Your task to perform on an android device: Open Google Chrome Image 0: 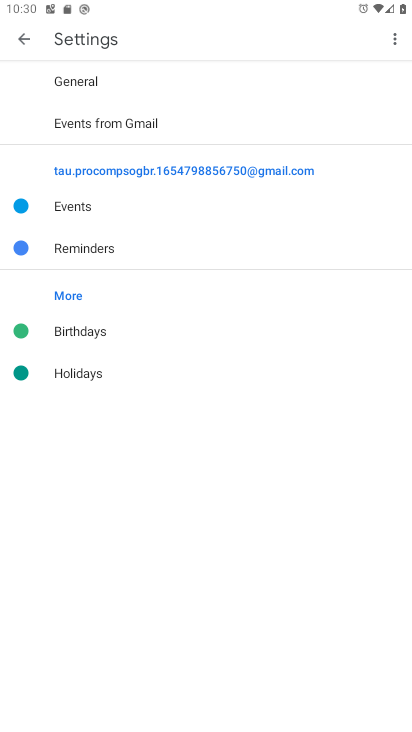
Step 0: press home button
Your task to perform on an android device: Open Google Chrome Image 1: 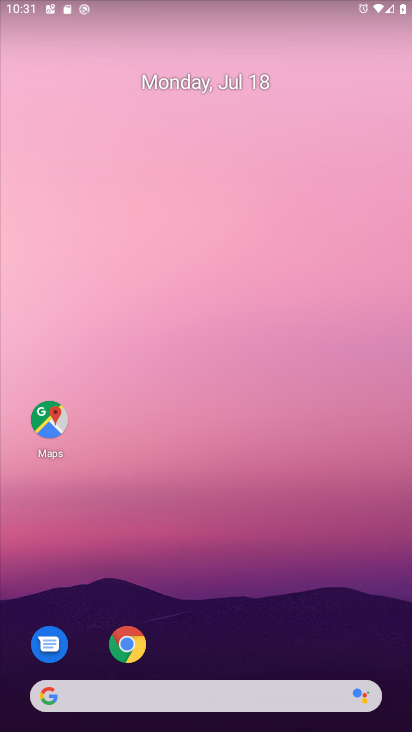
Step 1: click (146, 646)
Your task to perform on an android device: Open Google Chrome Image 2: 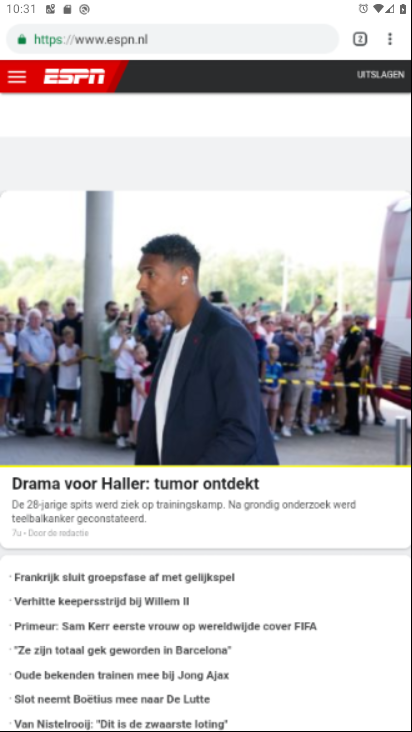
Step 2: task complete